Your task to perform on an android device: toggle pop-ups in chrome Image 0: 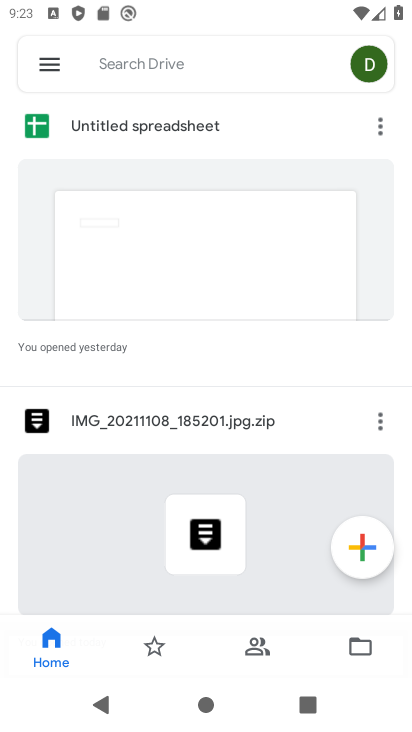
Step 0: press home button
Your task to perform on an android device: toggle pop-ups in chrome Image 1: 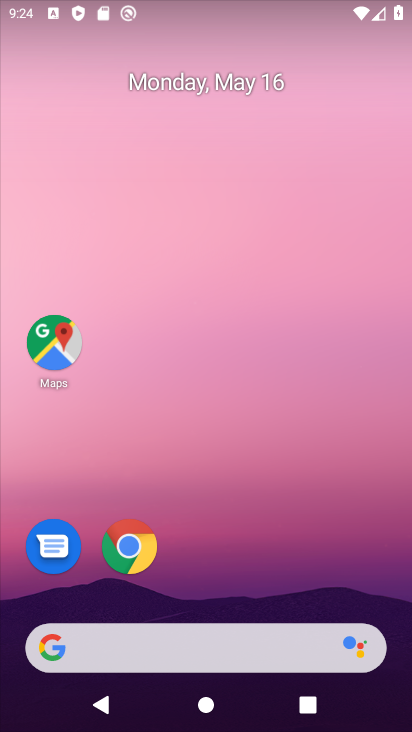
Step 1: click (146, 556)
Your task to perform on an android device: toggle pop-ups in chrome Image 2: 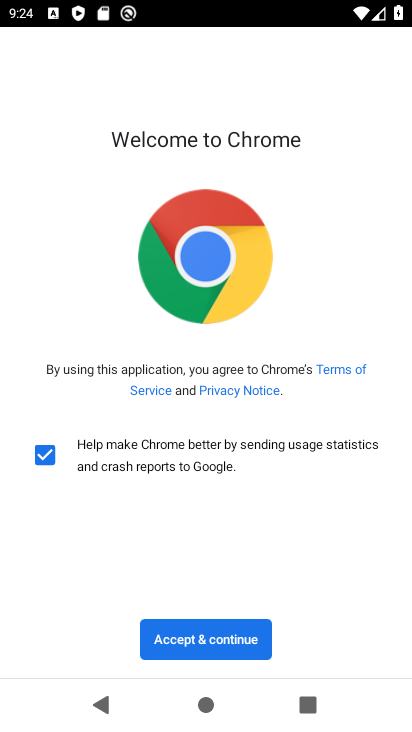
Step 2: click (212, 622)
Your task to perform on an android device: toggle pop-ups in chrome Image 3: 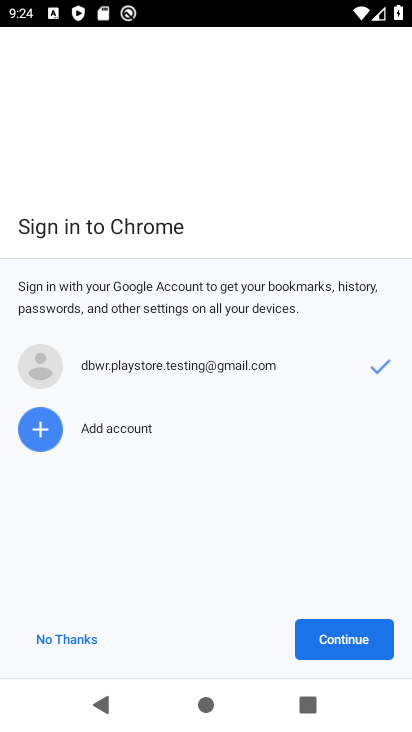
Step 3: click (352, 649)
Your task to perform on an android device: toggle pop-ups in chrome Image 4: 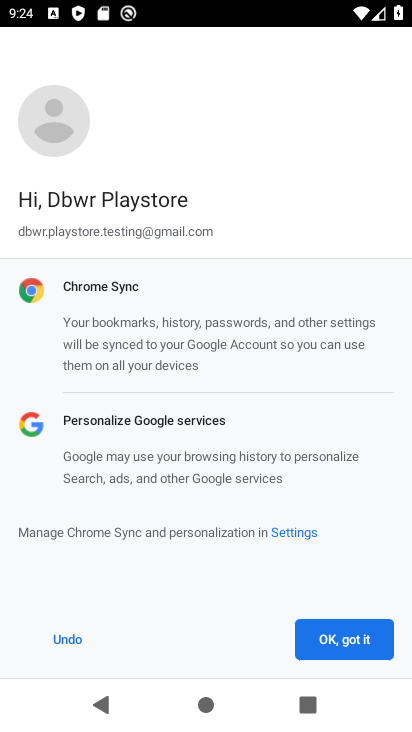
Step 4: click (315, 636)
Your task to perform on an android device: toggle pop-ups in chrome Image 5: 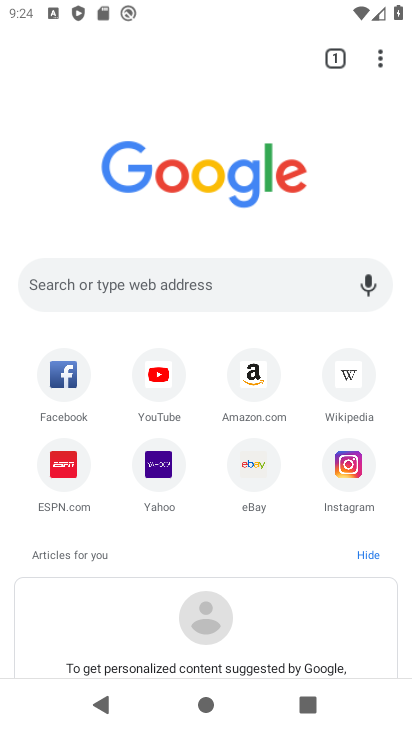
Step 5: click (394, 58)
Your task to perform on an android device: toggle pop-ups in chrome Image 6: 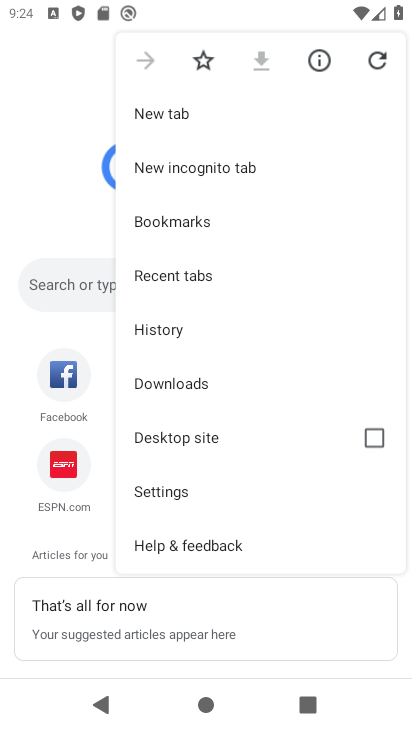
Step 6: click (204, 485)
Your task to perform on an android device: toggle pop-ups in chrome Image 7: 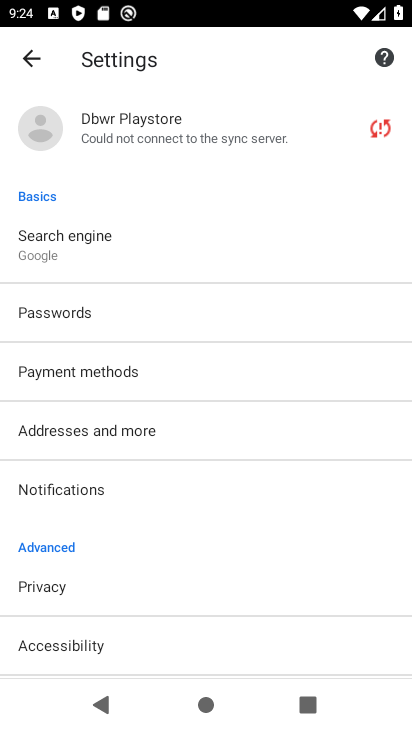
Step 7: drag from (84, 647) to (255, 50)
Your task to perform on an android device: toggle pop-ups in chrome Image 8: 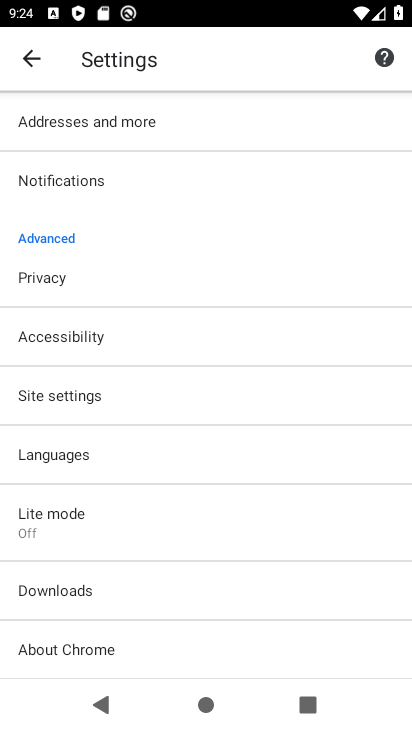
Step 8: click (164, 403)
Your task to perform on an android device: toggle pop-ups in chrome Image 9: 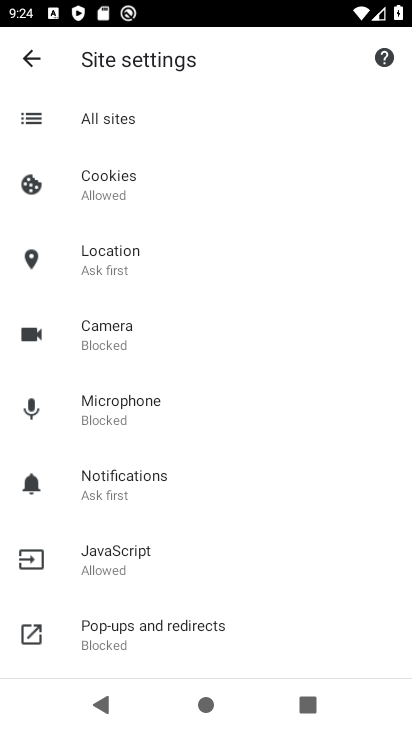
Step 9: click (143, 664)
Your task to perform on an android device: toggle pop-ups in chrome Image 10: 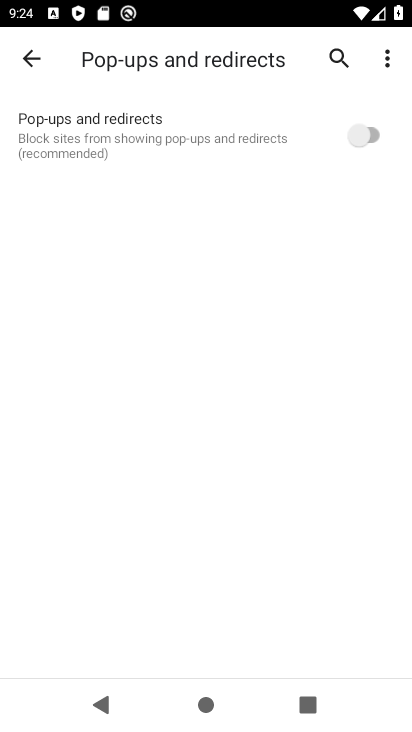
Step 10: click (363, 141)
Your task to perform on an android device: toggle pop-ups in chrome Image 11: 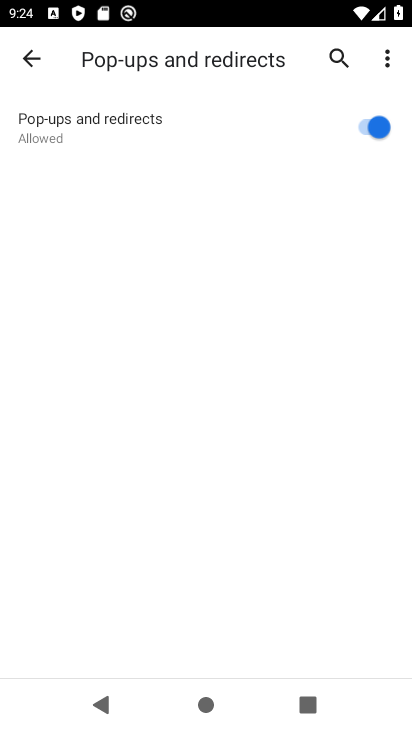
Step 11: click (363, 141)
Your task to perform on an android device: toggle pop-ups in chrome Image 12: 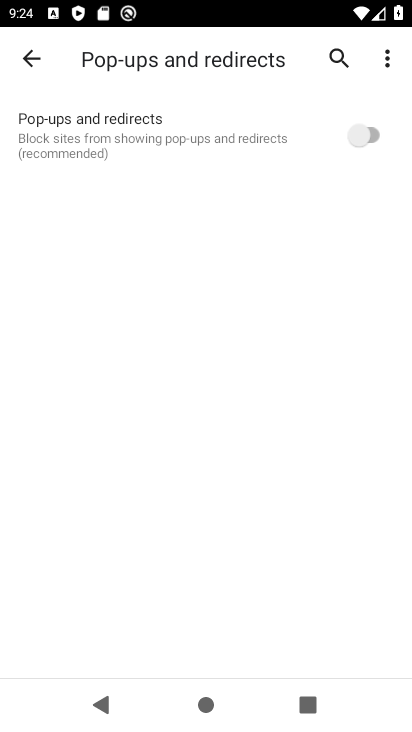
Step 12: task complete